Your task to perform on an android device: Toggle the flashlight Image 0: 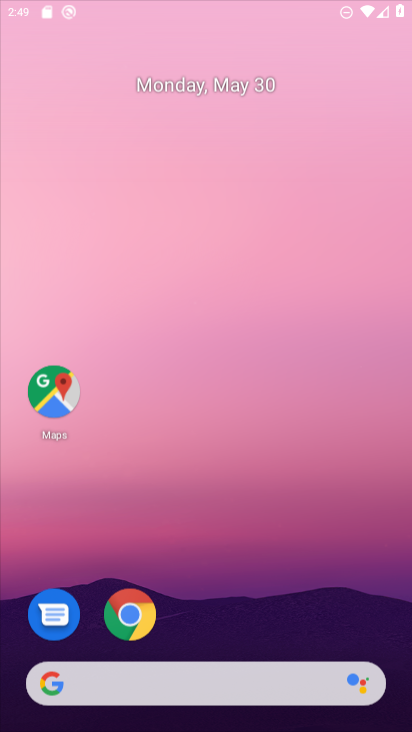
Step 0: click (301, 124)
Your task to perform on an android device: Toggle the flashlight Image 1: 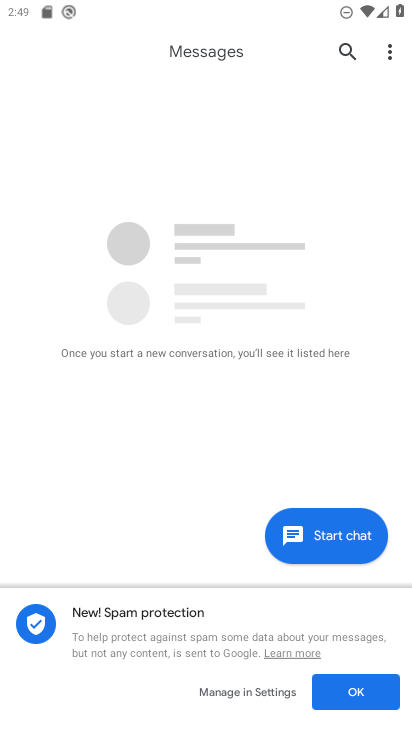
Step 1: task complete